Your task to perform on an android device: add a contact Image 0: 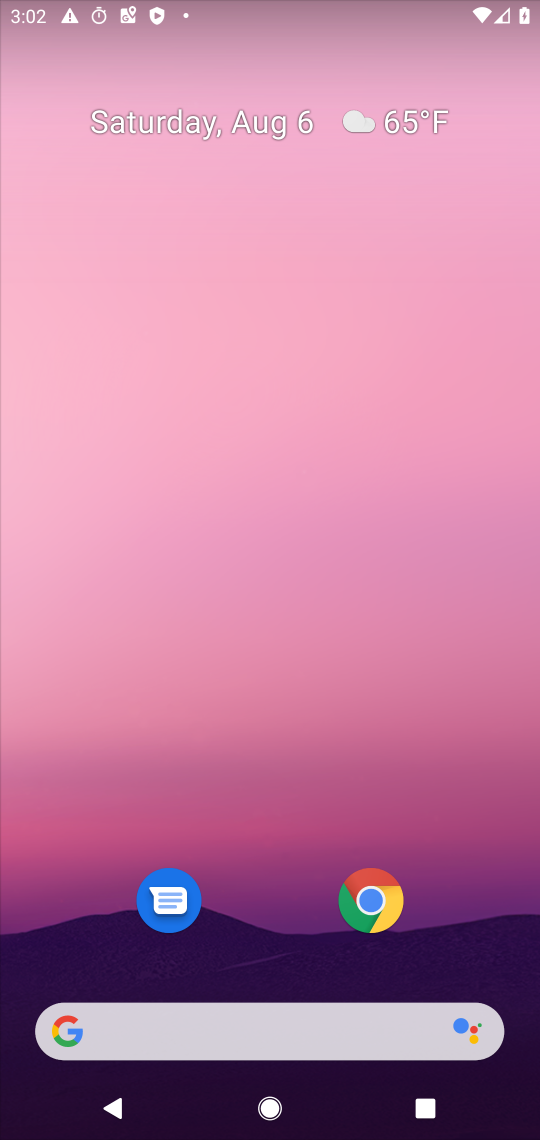
Step 0: press home button
Your task to perform on an android device: add a contact Image 1: 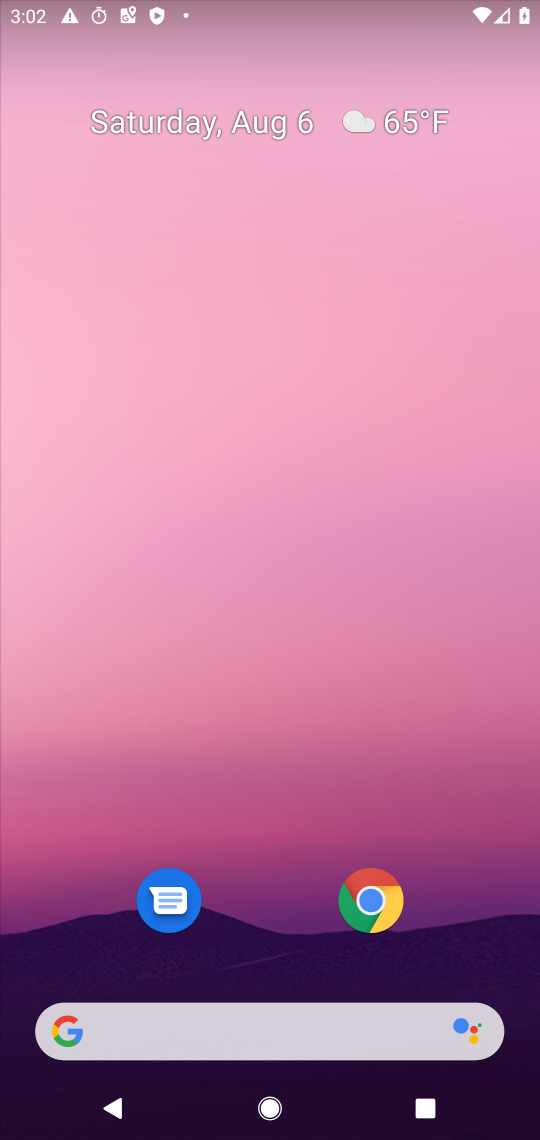
Step 1: drag from (242, 607) to (227, 157)
Your task to perform on an android device: add a contact Image 2: 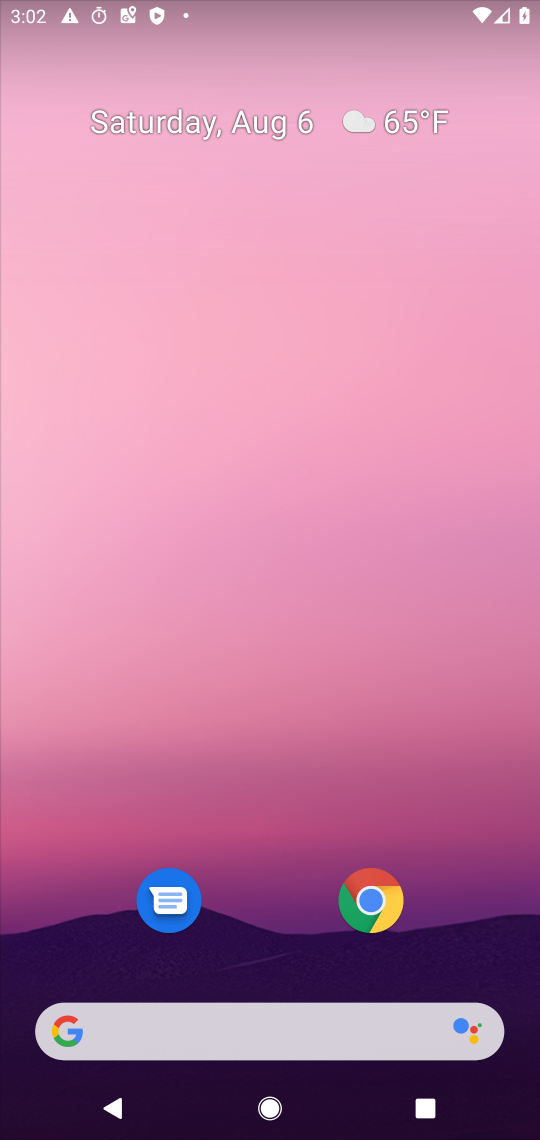
Step 2: drag from (250, 893) to (237, 63)
Your task to perform on an android device: add a contact Image 3: 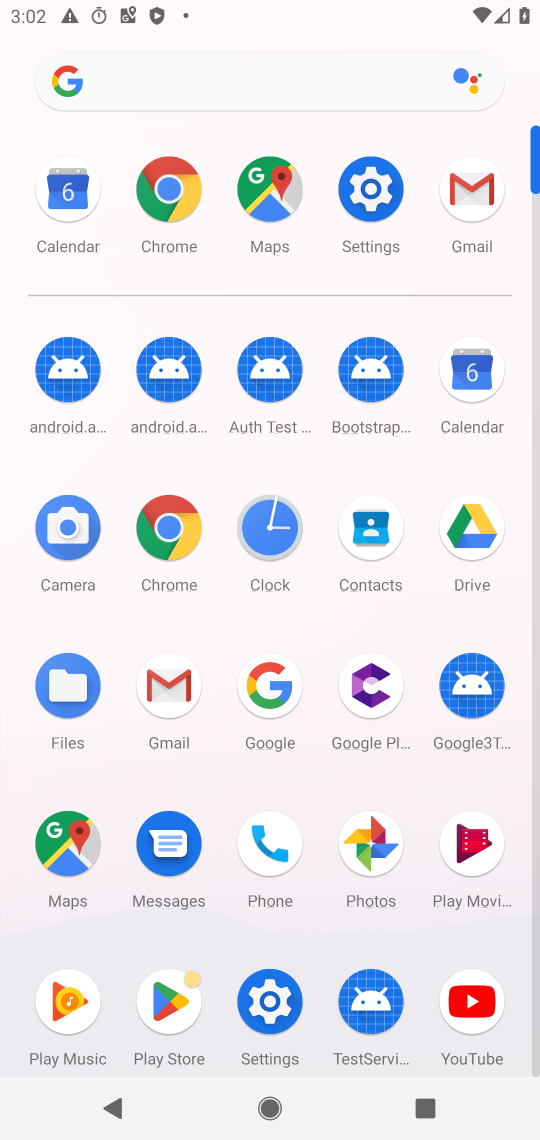
Step 3: click (364, 529)
Your task to perform on an android device: add a contact Image 4: 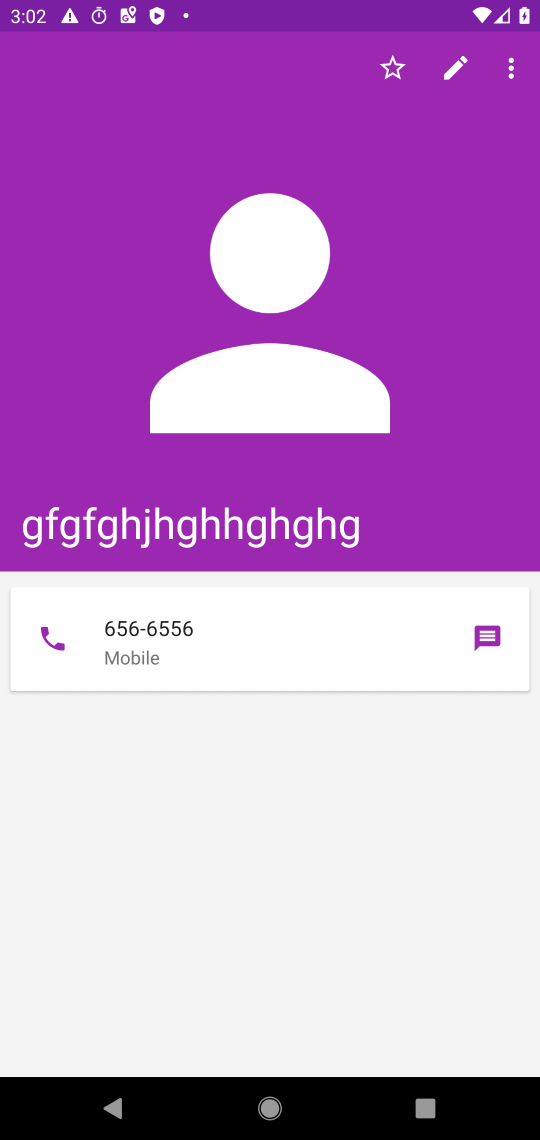
Step 4: press back button
Your task to perform on an android device: add a contact Image 5: 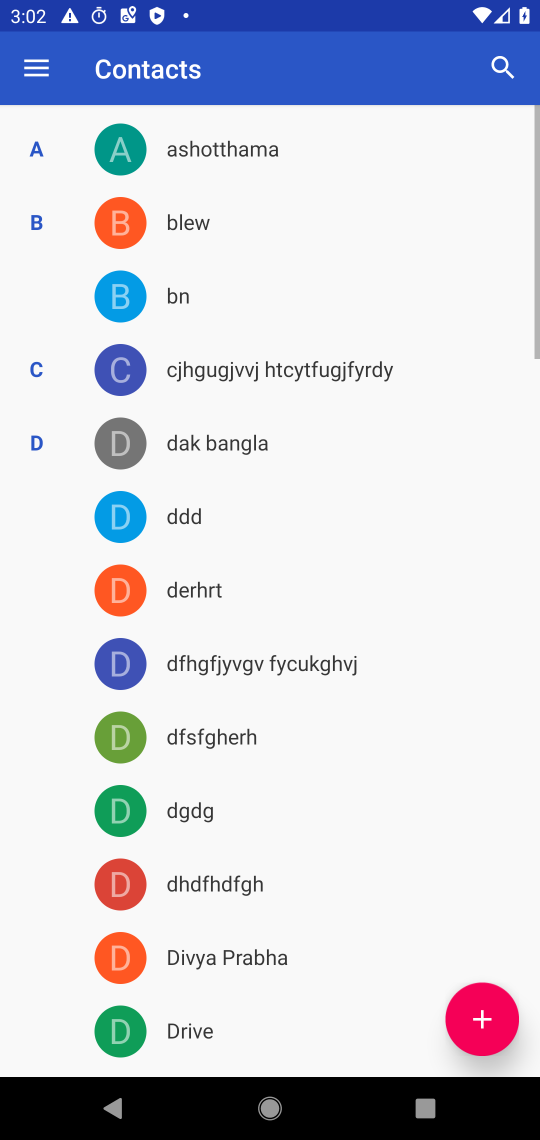
Step 5: click (482, 1023)
Your task to perform on an android device: add a contact Image 6: 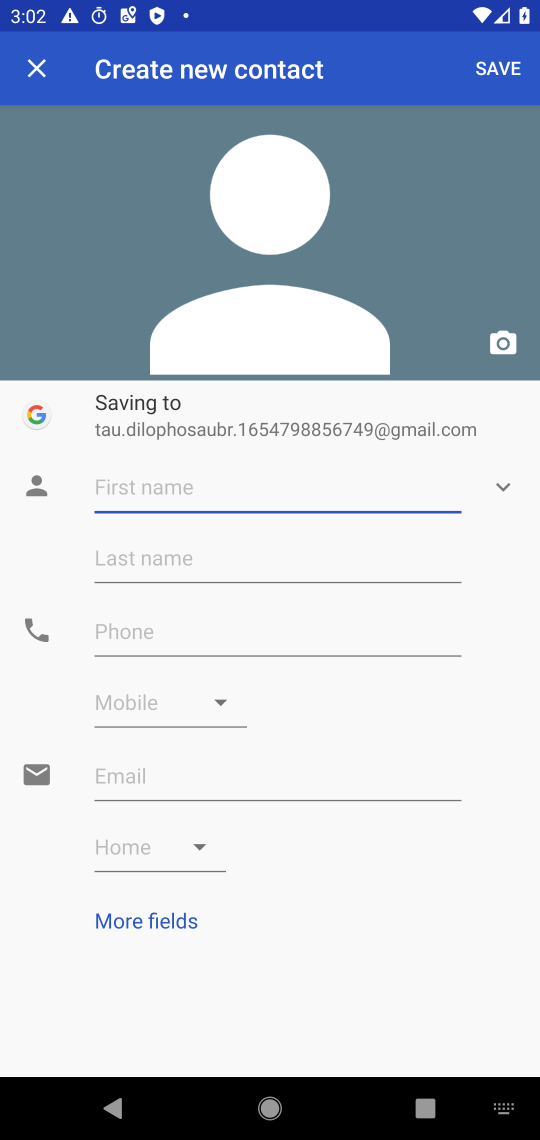
Step 6: type "dyytuufgfgffhgf"
Your task to perform on an android device: add a contact Image 7: 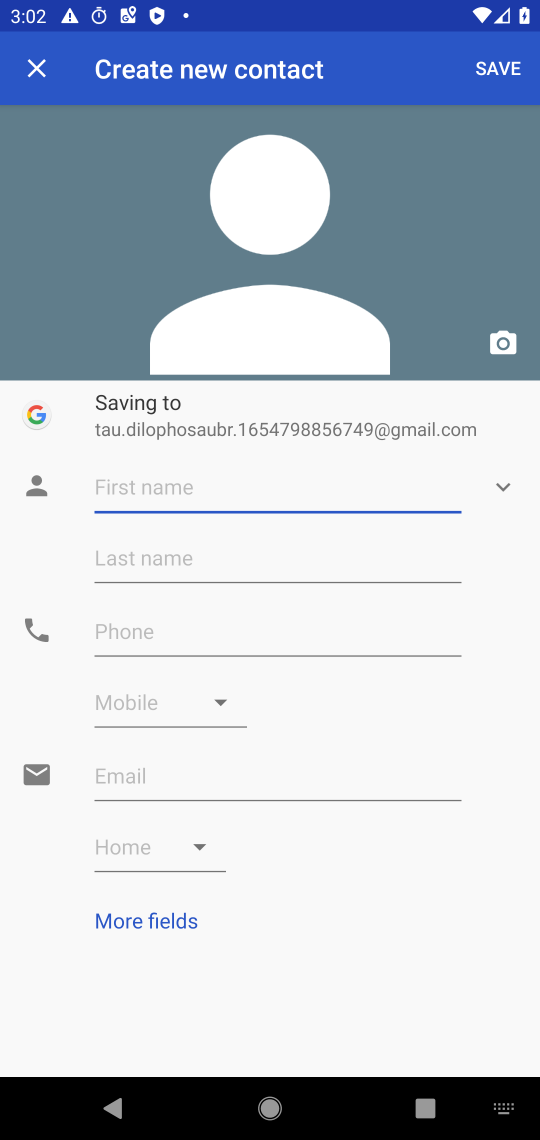
Step 7: click (175, 489)
Your task to perform on an android device: add a contact Image 8: 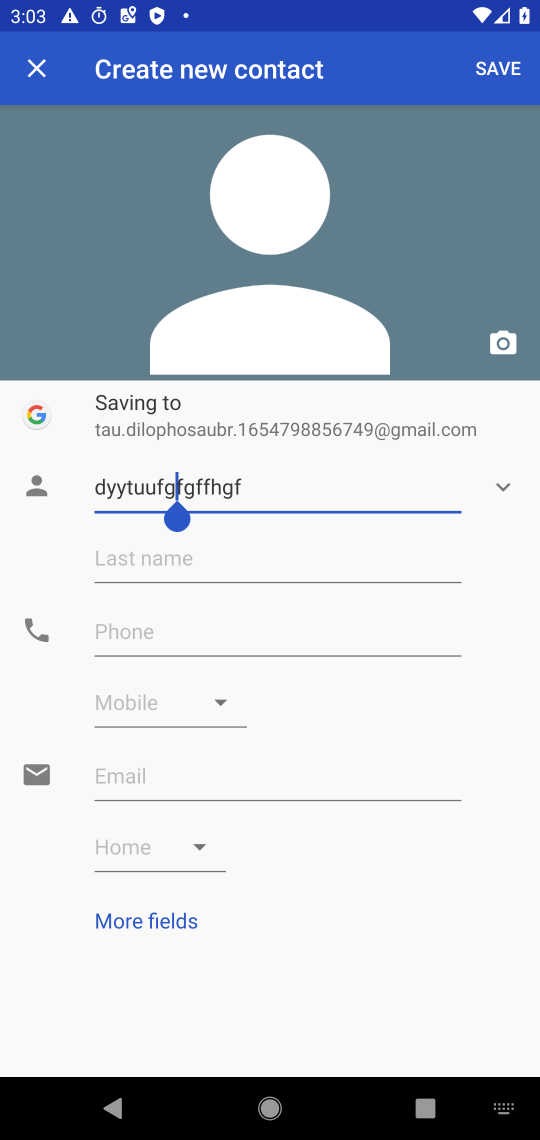
Step 8: click (169, 624)
Your task to perform on an android device: add a contact Image 9: 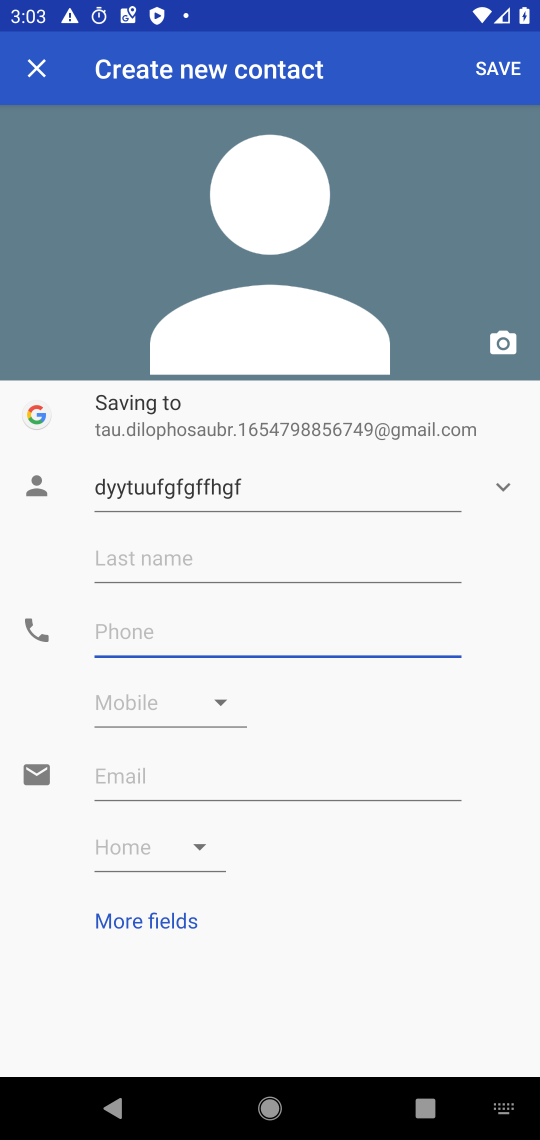
Step 9: type "56746565434234245656"
Your task to perform on an android device: add a contact Image 10: 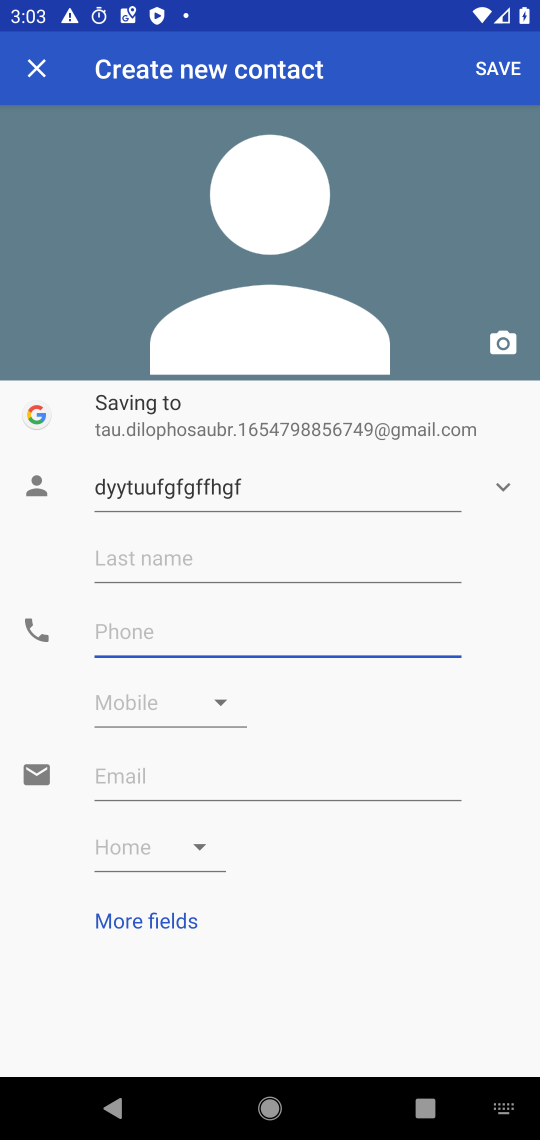
Step 10: click (126, 631)
Your task to perform on an android device: add a contact Image 11: 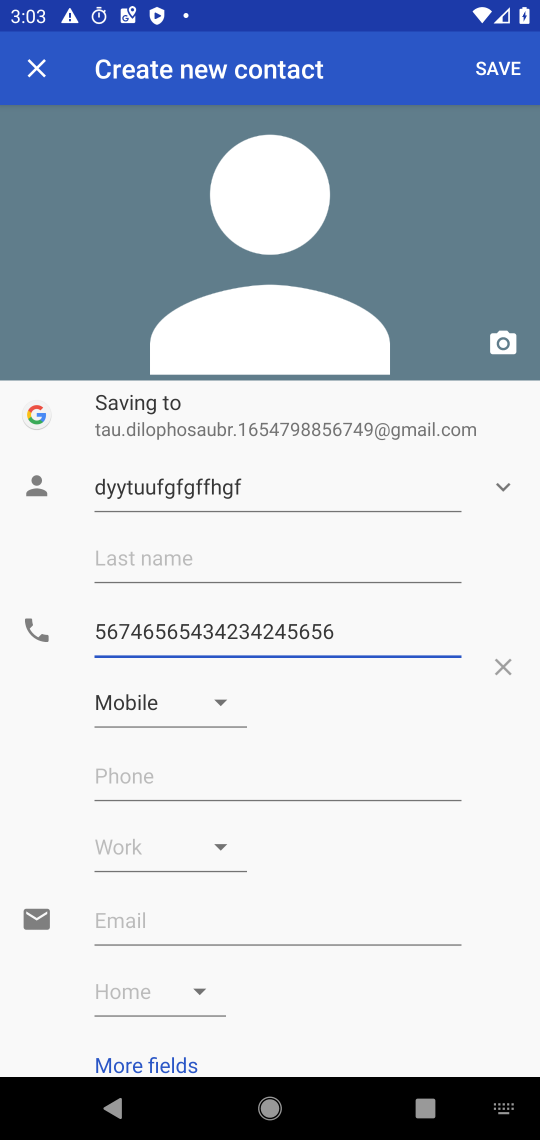
Step 11: click (502, 55)
Your task to perform on an android device: add a contact Image 12: 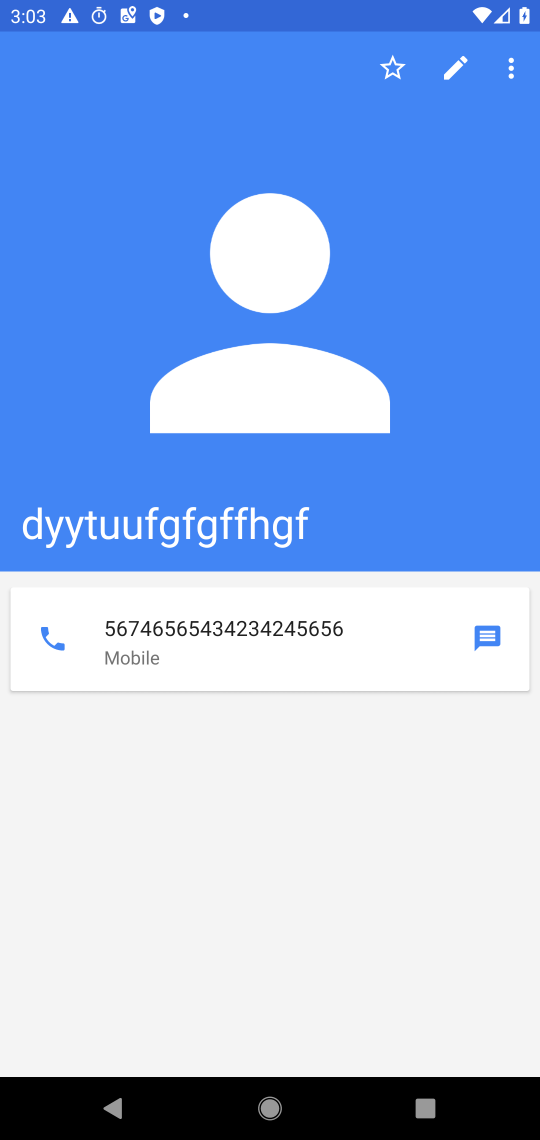
Step 12: task complete